Your task to perform on an android device: toggle pop-ups in chrome Image 0: 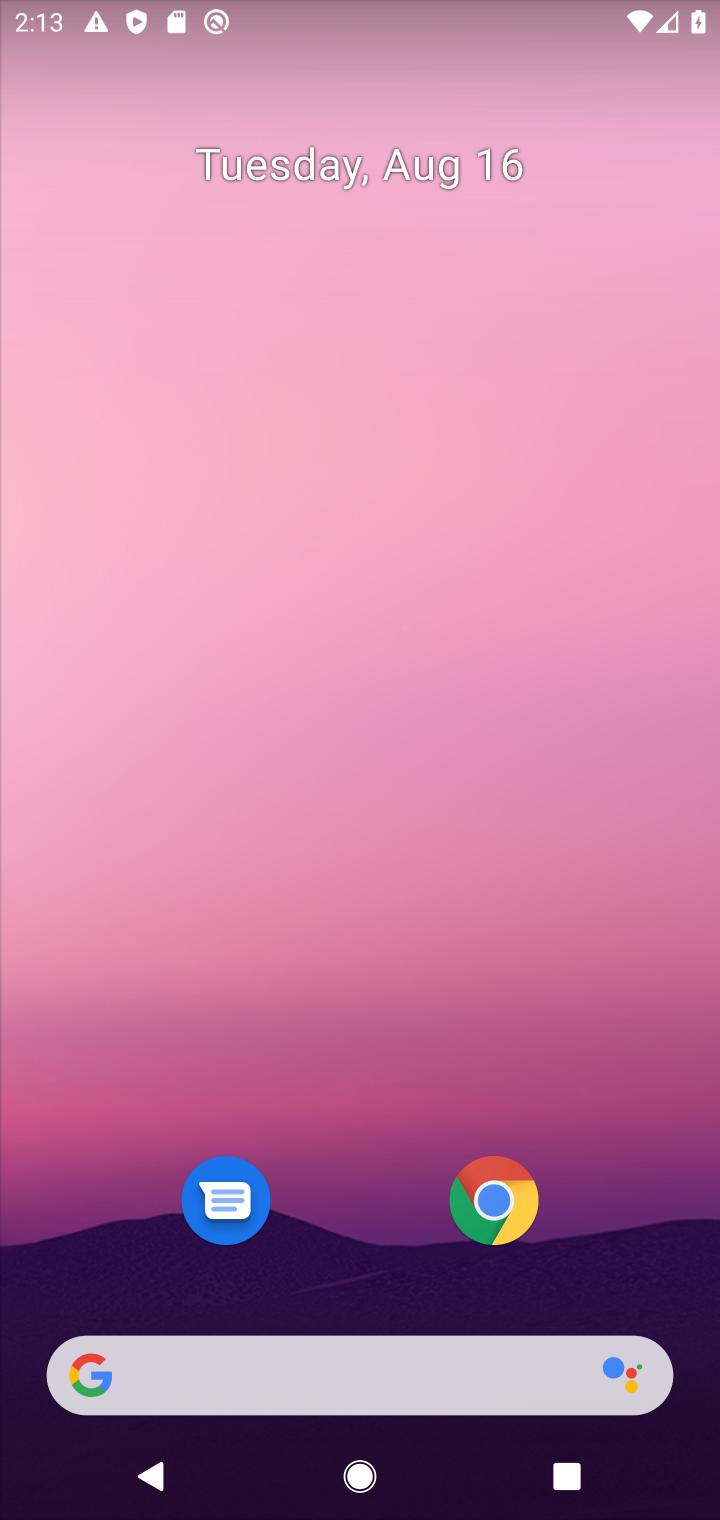
Step 0: click (516, 1185)
Your task to perform on an android device: toggle pop-ups in chrome Image 1: 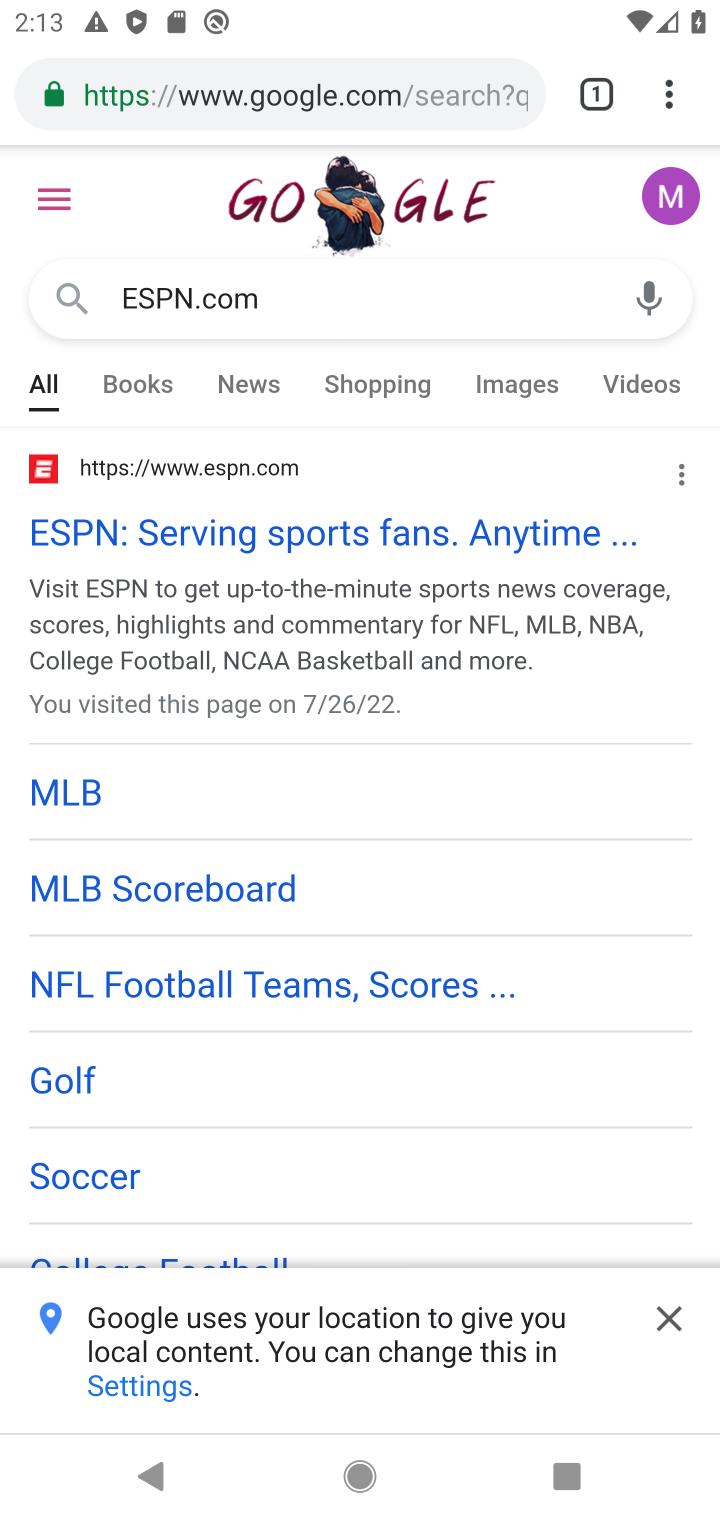
Step 1: click (667, 91)
Your task to perform on an android device: toggle pop-ups in chrome Image 2: 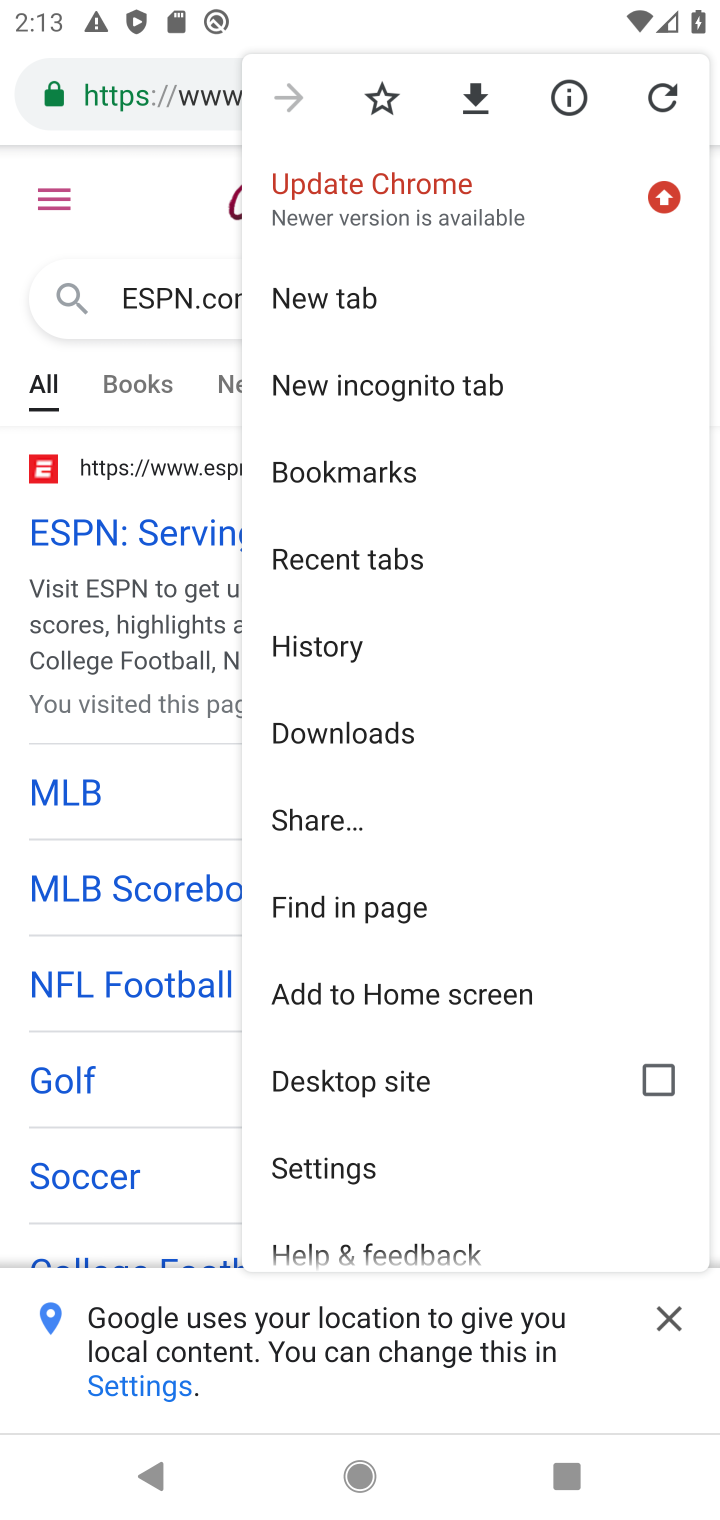
Step 2: click (346, 1158)
Your task to perform on an android device: toggle pop-ups in chrome Image 3: 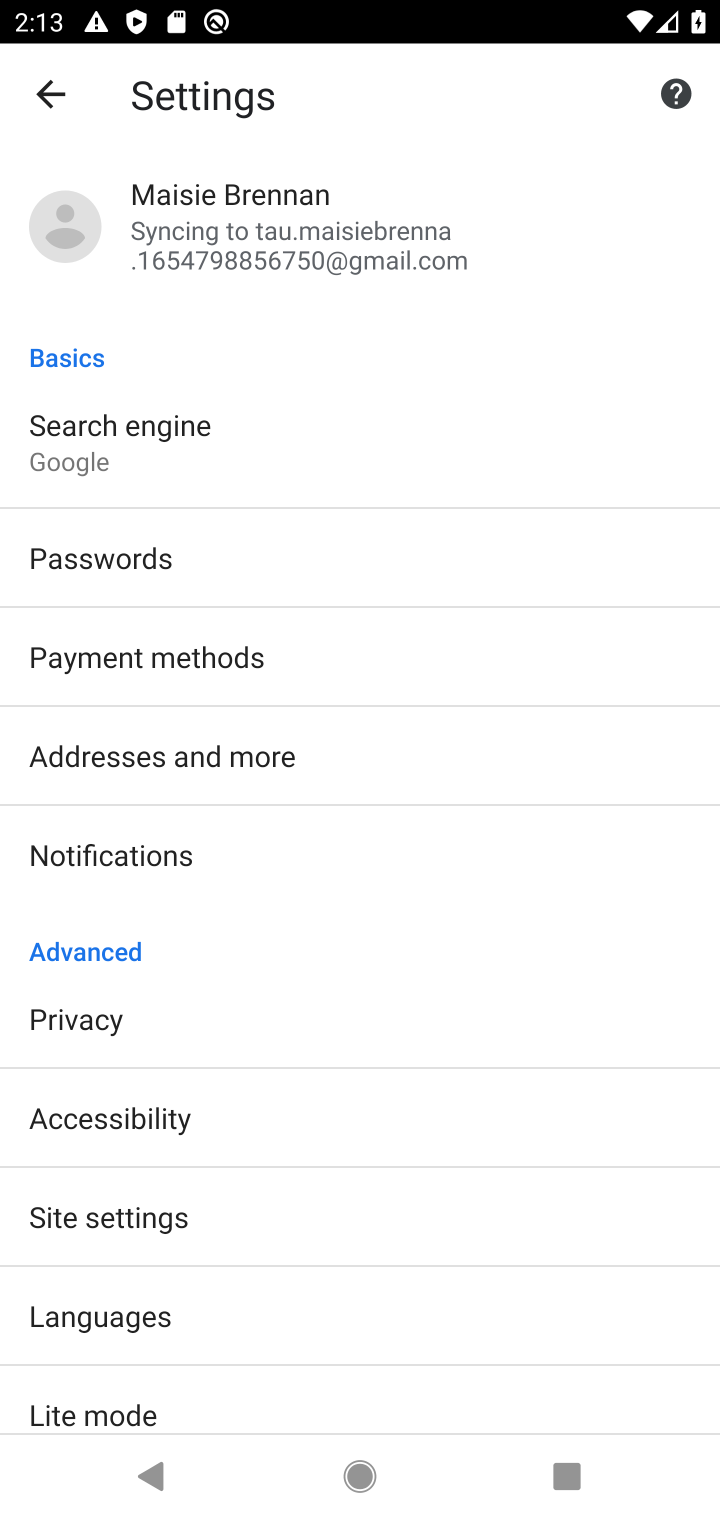
Step 3: click (135, 1211)
Your task to perform on an android device: toggle pop-ups in chrome Image 4: 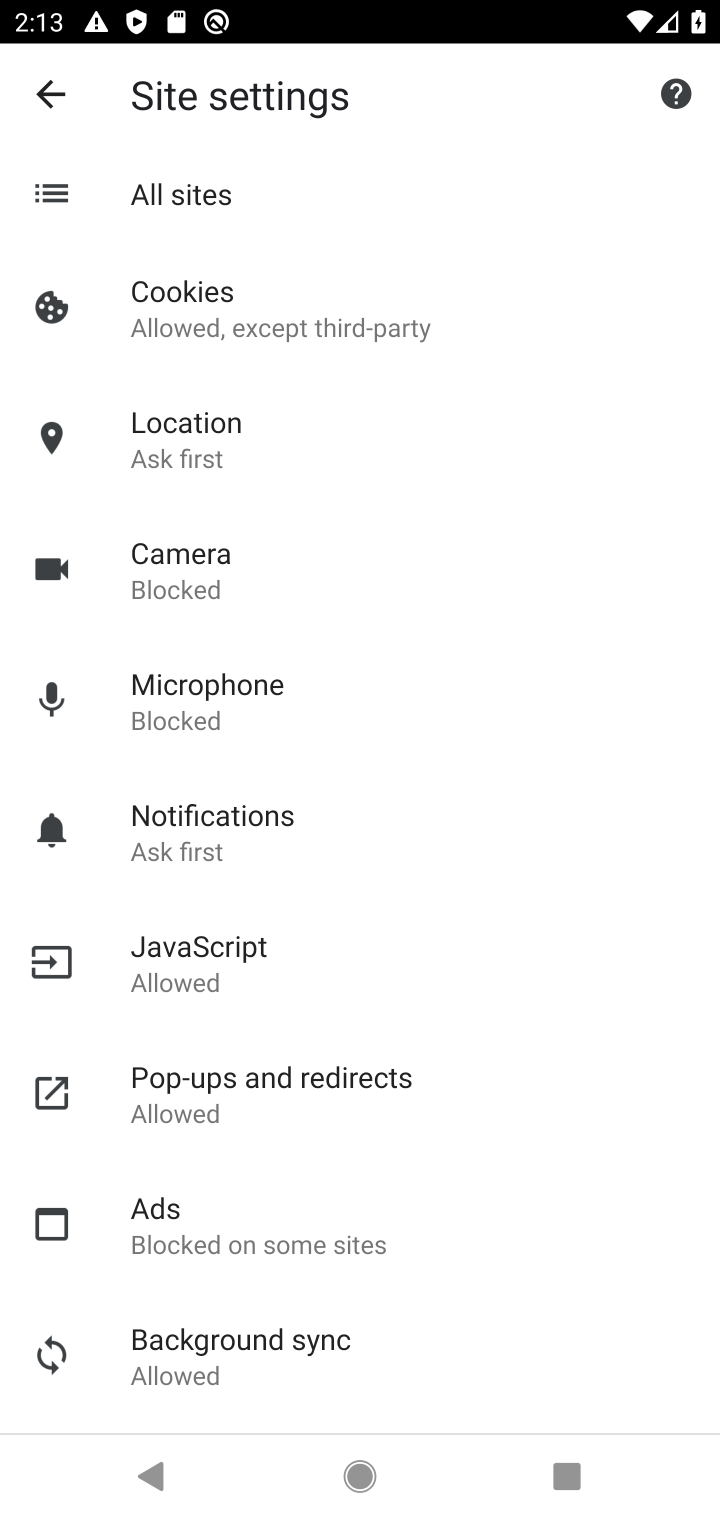
Step 4: click (218, 1084)
Your task to perform on an android device: toggle pop-ups in chrome Image 5: 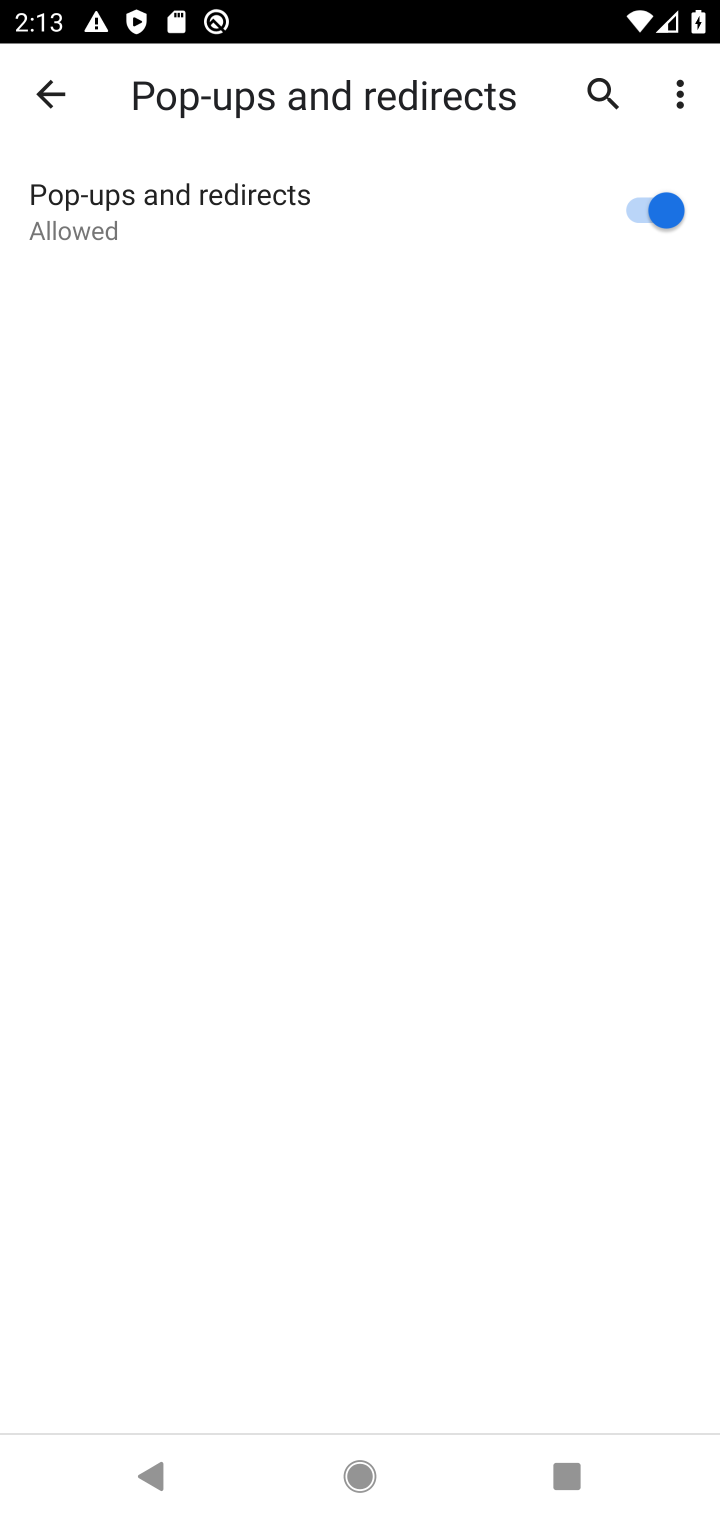
Step 5: task complete